Your task to perform on an android device: turn smart compose on in the gmail app Image 0: 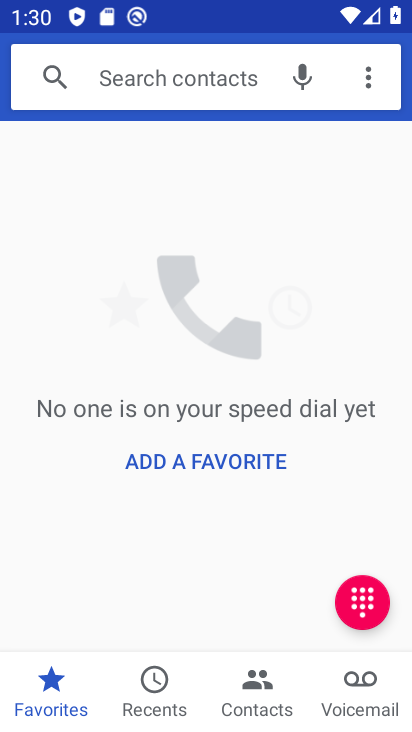
Step 0: press back button
Your task to perform on an android device: turn smart compose on in the gmail app Image 1: 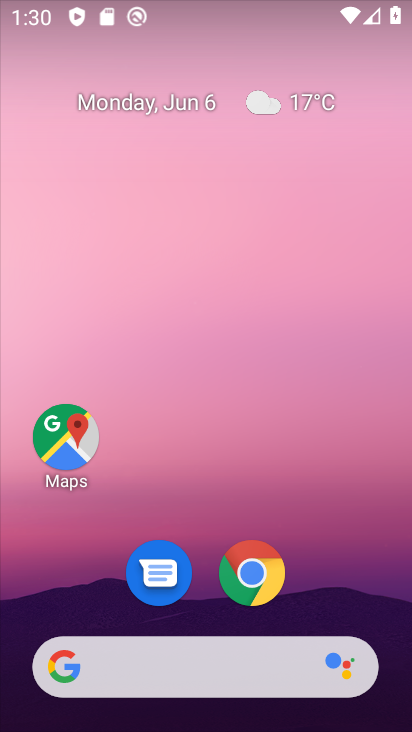
Step 1: drag from (181, 602) to (265, 178)
Your task to perform on an android device: turn smart compose on in the gmail app Image 2: 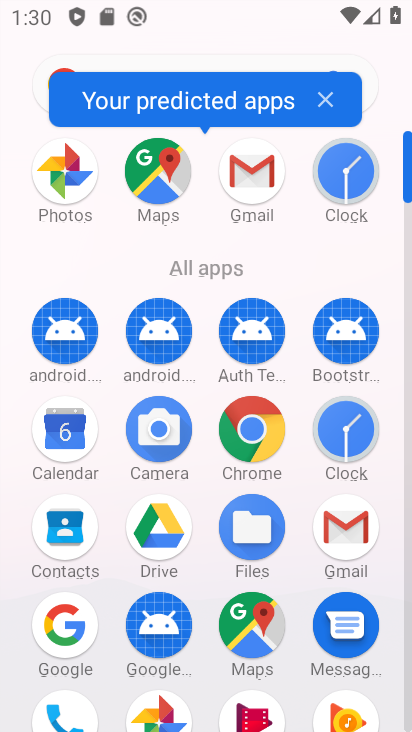
Step 2: click (255, 169)
Your task to perform on an android device: turn smart compose on in the gmail app Image 3: 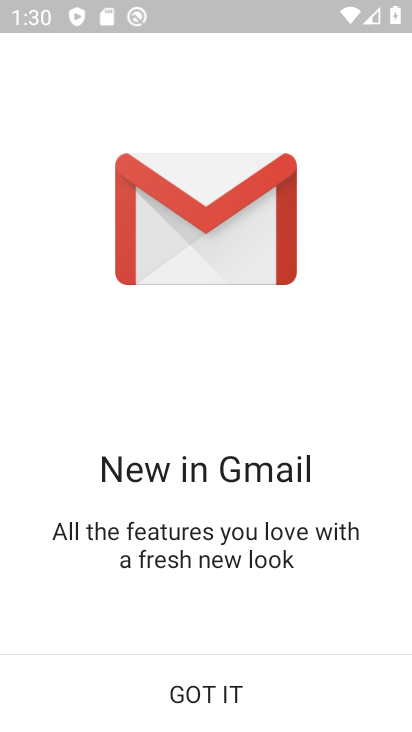
Step 3: click (174, 693)
Your task to perform on an android device: turn smart compose on in the gmail app Image 4: 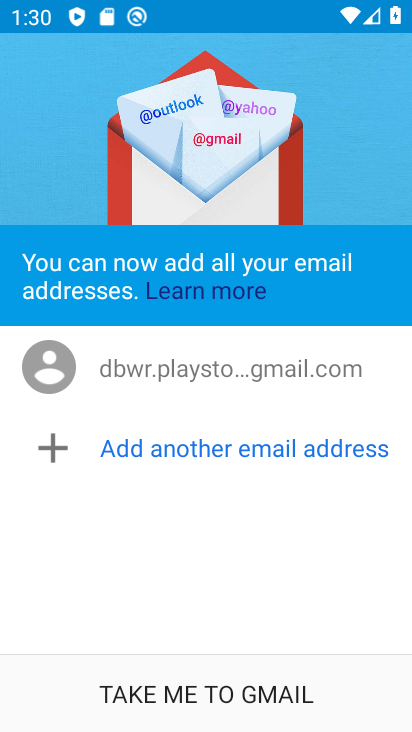
Step 4: click (204, 692)
Your task to perform on an android device: turn smart compose on in the gmail app Image 5: 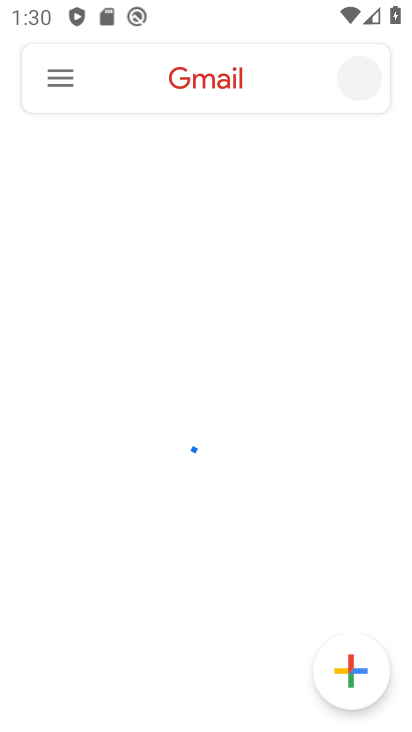
Step 5: click (59, 82)
Your task to perform on an android device: turn smart compose on in the gmail app Image 6: 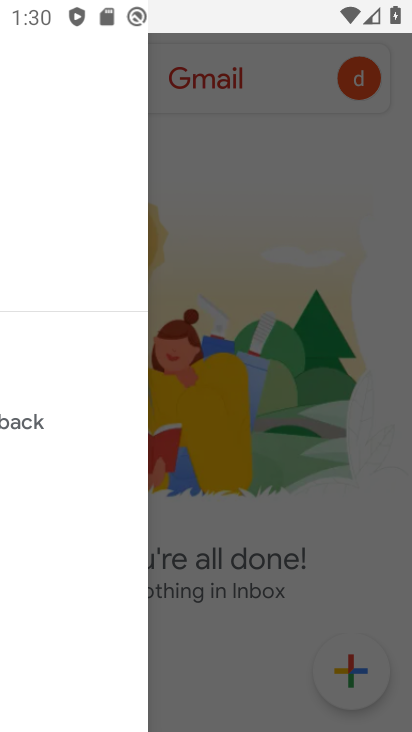
Step 6: click (158, 358)
Your task to perform on an android device: turn smart compose on in the gmail app Image 7: 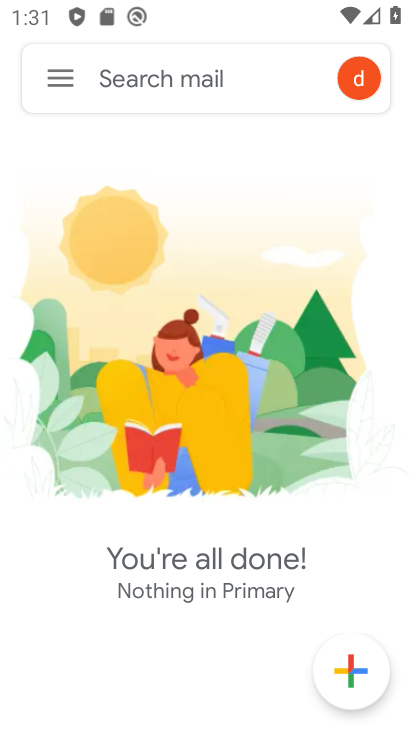
Step 7: click (58, 75)
Your task to perform on an android device: turn smart compose on in the gmail app Image 8: 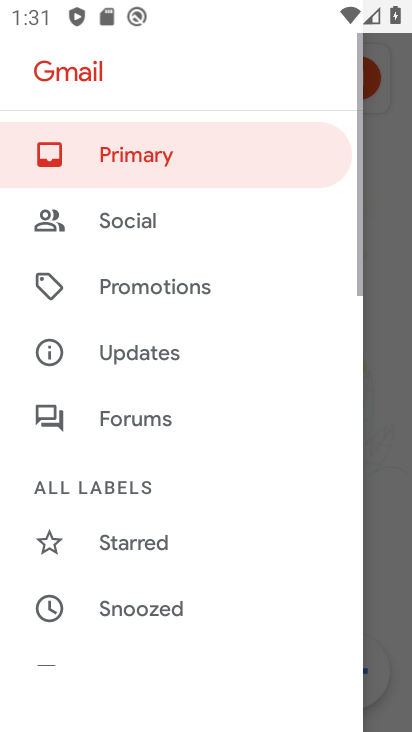
Step 8: drag from (162, 620) to (205, 102)
Your task to perform on an android device: turn smart compose on in the gmail app Image 9: 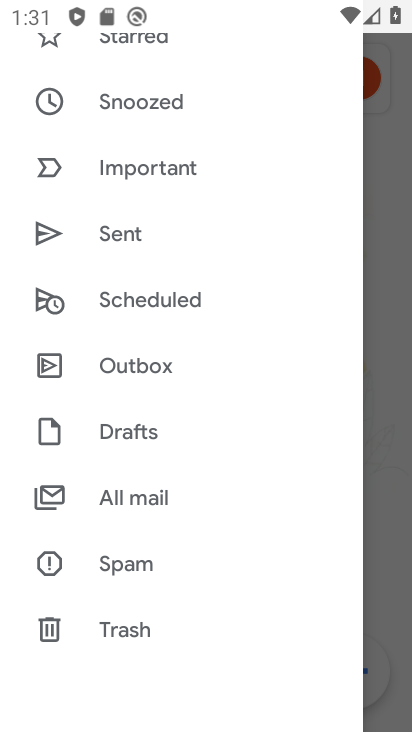
Step 9: drag from (147, 576) to (190, 67)
Your task to perform on an android device: turn smart compose on in the gmail app Image 10: 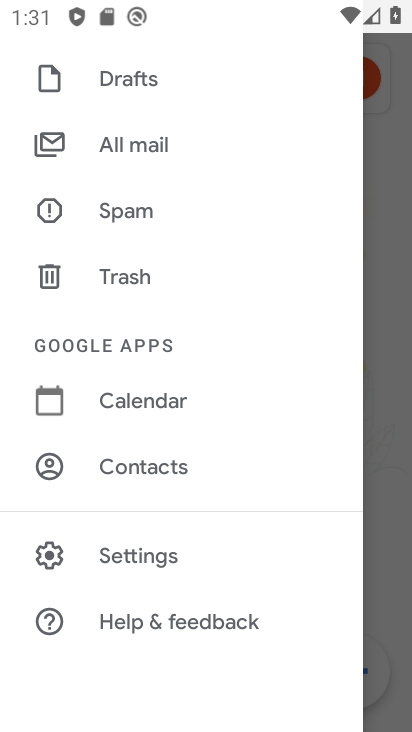
Step 10: click (110, 553)
Your task to perform on an android device: turn smart compose on in the gmail app Image 11: 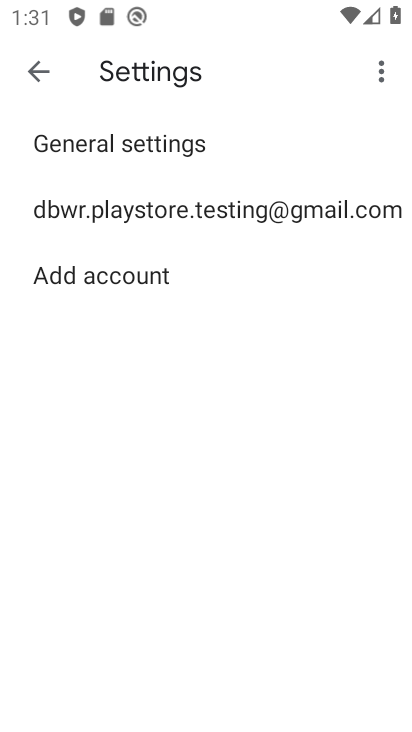
Step 11: click (140, 218)
Your task to perform on an android device: turn smart compose on in the gmail app Image 12: 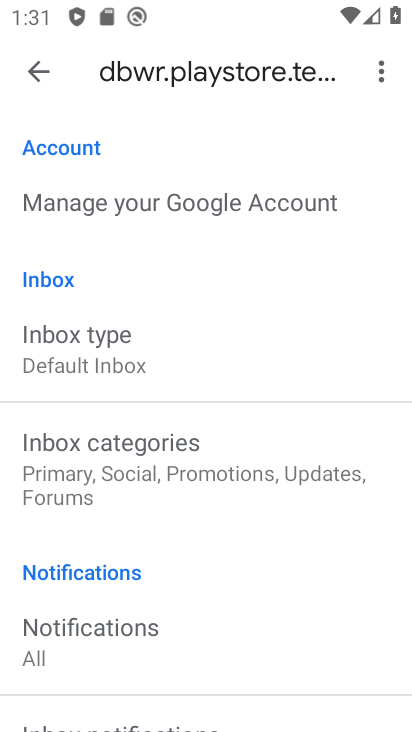
Step 12: task complete